Your task to perform on an android device: Find coffee shops on Maps Image 0: 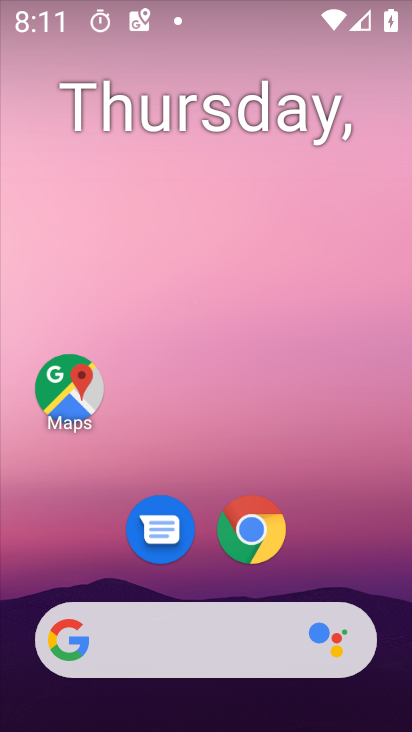
Step 0: click (63, 384)
Your task to perform on an android device: Find coffee shops on Maps Image 1: 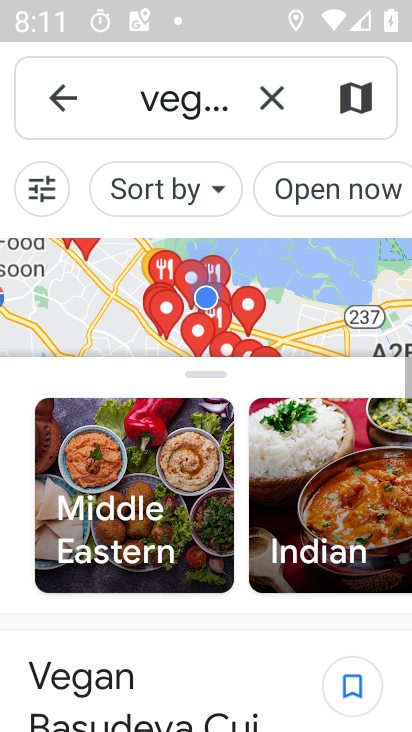
Step 1: click (264, 85)
Your task to perform on an android device: Find coffee shops on Maps Image 2: 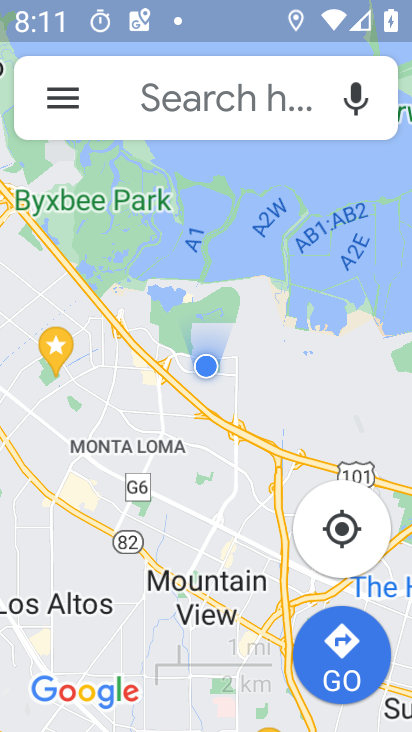
Step 2: type "coffee shops "
Your task to perform on an android device: Find coffee shops on Maps Image 3: 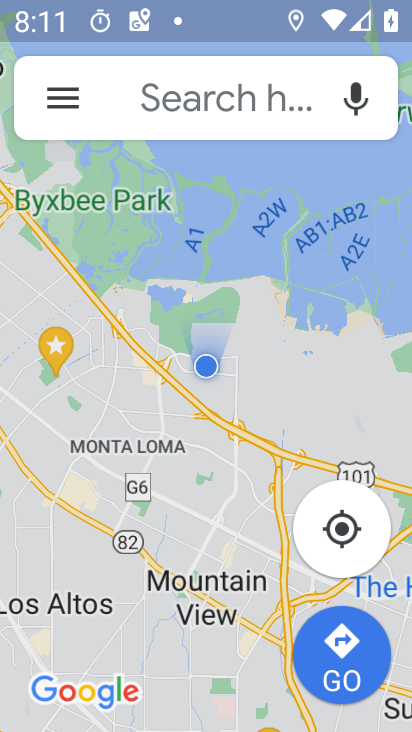
Step 3: click (149, 108)
Your task to perform on an android device: Find coffee shops on Maps Image 4: 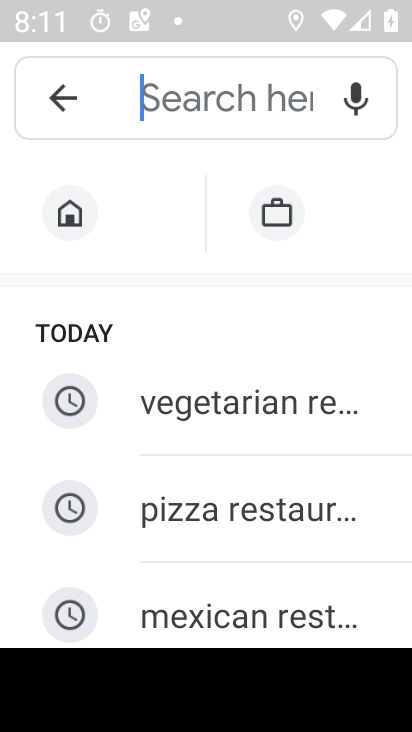
Step 4: type "coffee shops "
Your task to perform on an android device: Find coffee shops on Maps Image 5: 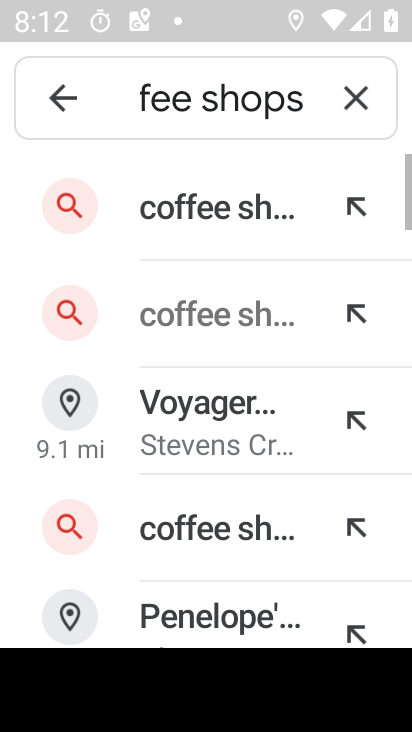
Step 5: click (168, 206)
Your task to perform on an android device: Find coffee shops on Maps Image 6: 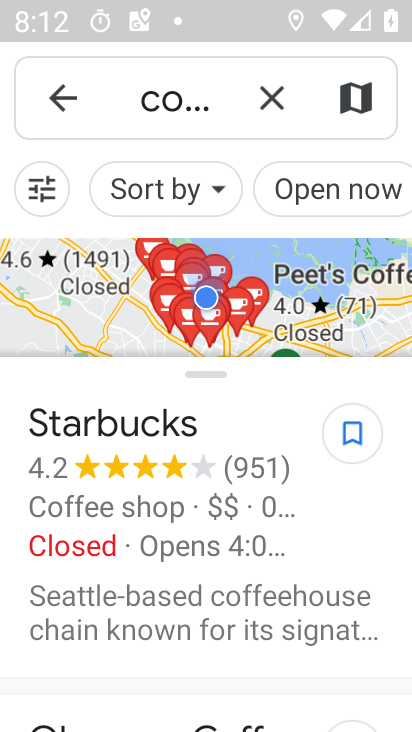
Step 6: task complete